Your task to perform on an android device: Go to display settings Image 0: 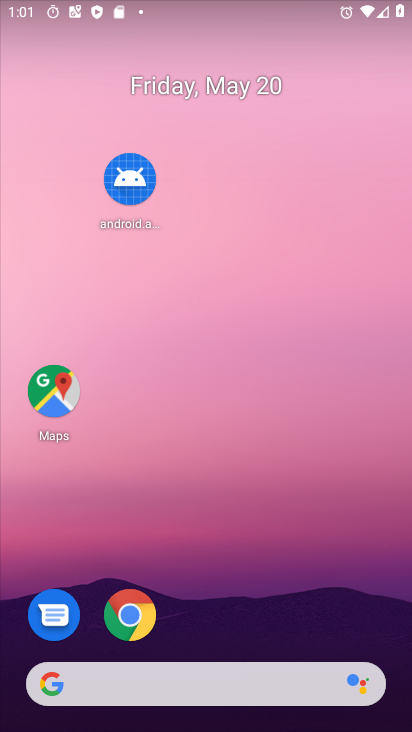
Step 0: drag from (346, 523) to (361, 110)
Your task to perform on an android device: Go to display settings Image 1: 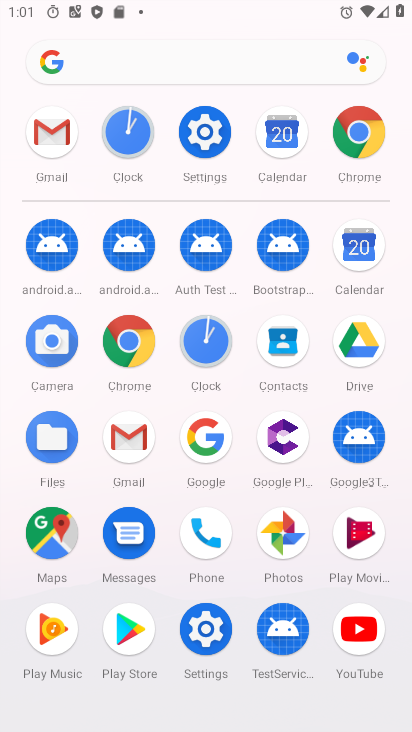
Step 1: click (216, 637)
Your task to perform on an android device: Go to display settings Image 2: 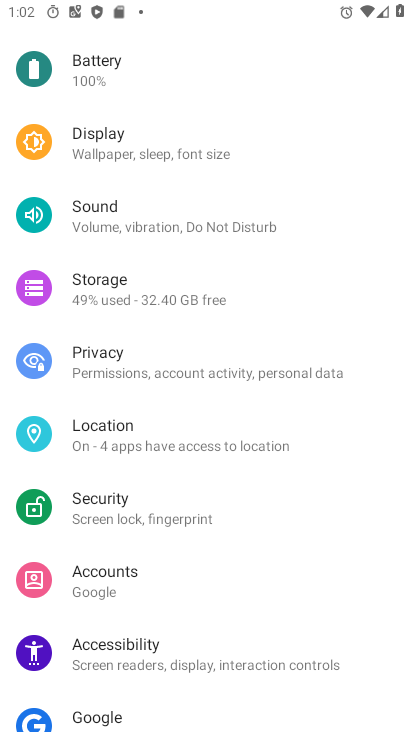
Step 2: click (205, 137)
Your task to perform on an android device: Go to display settings Image 3: 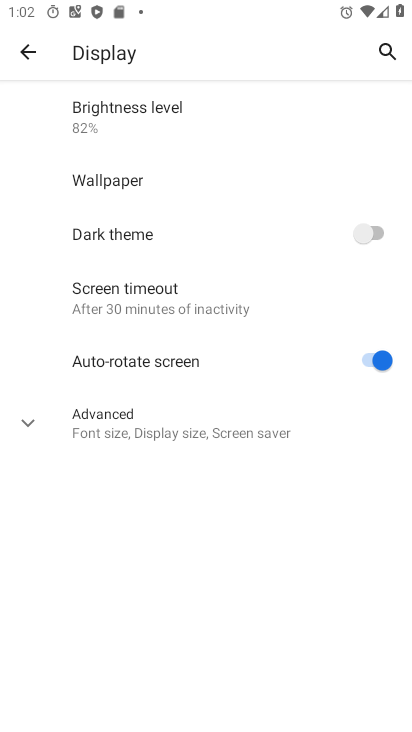
Step 3: task complete